Your task to perform on an android device: What's the weather going to be this weekend? Image 0: 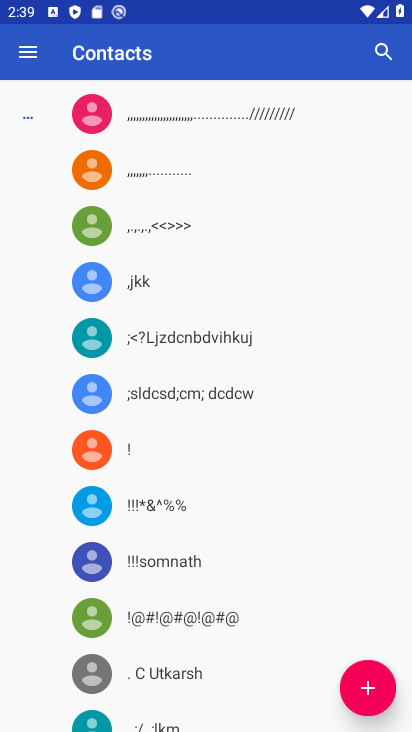
Step 0: press home button
Your task to perform on an android device: What's the weather going to be this weekend? Image 1: 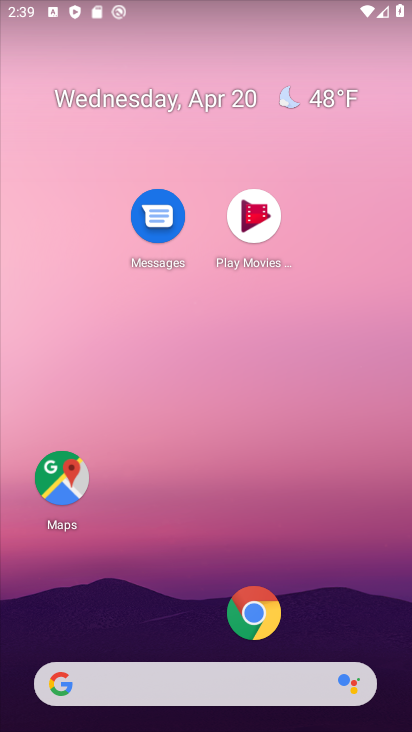
Step 1: click (318, 103)
Your task to perform on an android device: What's the weather going to be this weekend? Image 2: 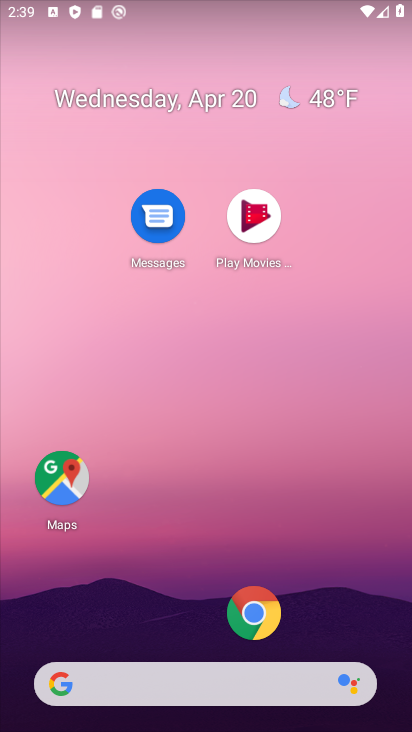
Step 2: click (342, 95)
Your task to perform on an android device: What's the weather going to be this weekend? Image 3: 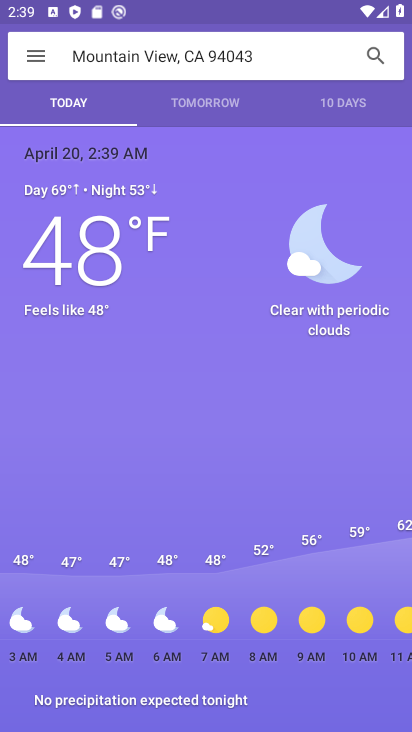
Step 3: click (358, 98)
Your task to perform on an android device: What's the weather going to be this weekend? Image 4: 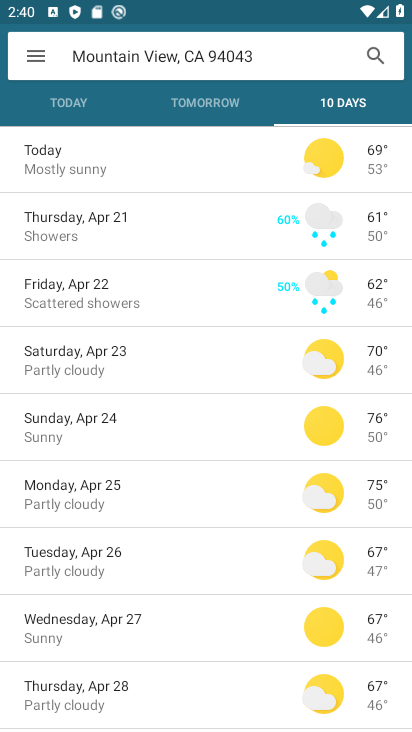
Step 4: task complete